Your task to perform on an android device: toggle wifi Image 0: 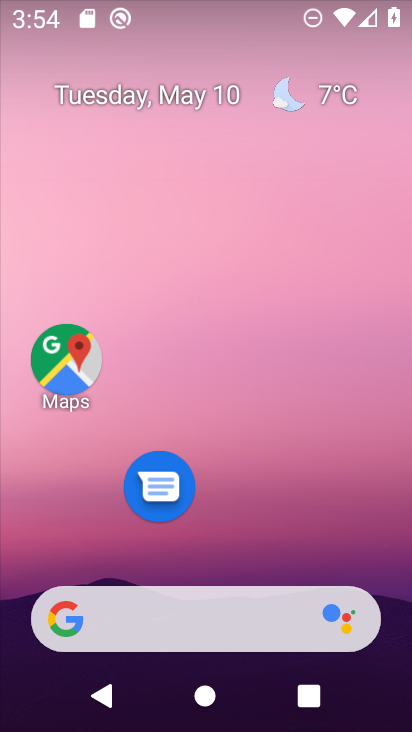
Step 0: drag from (275, 495) to (210, 16)
Your task to perform on an android device: toggle wifi Image 1: 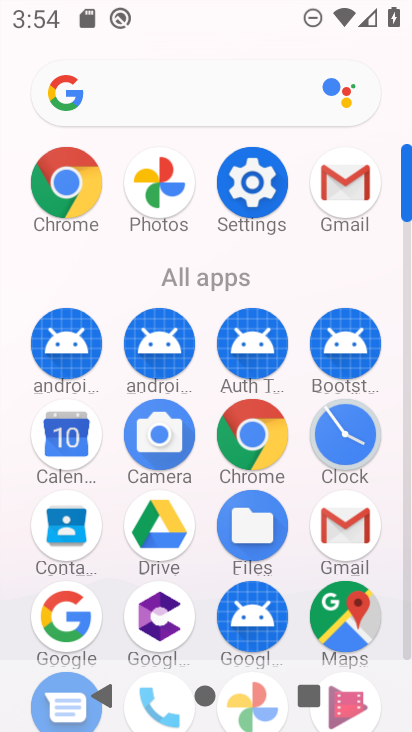
Step 1: drag from (18, 490) to (4, 236)
Your task to perform on an android device: toggle wifi Image 2: 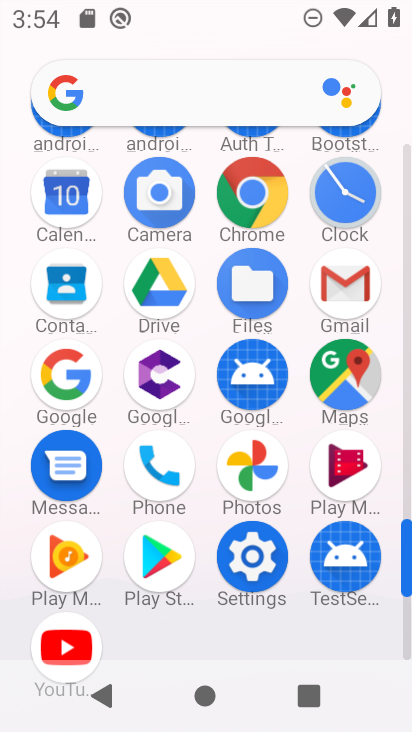
Step 2: click (251, 553)
Your task to perform on an android device: toggle wifi Image 3: 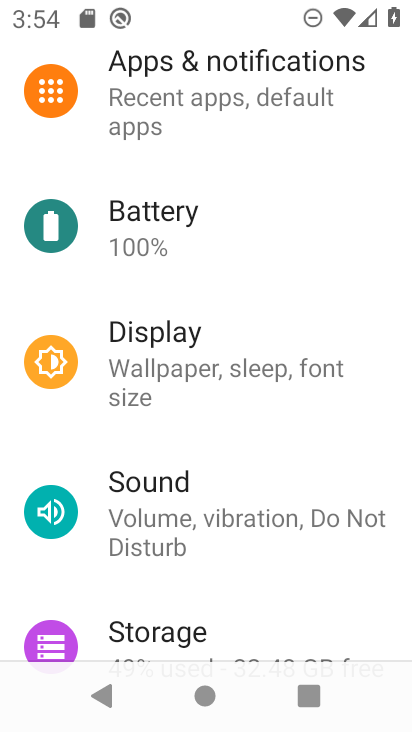
Step 3: drag from (276, 233) to (276, 570)
Your task to perform on an android device: toggle wifi Image 4: 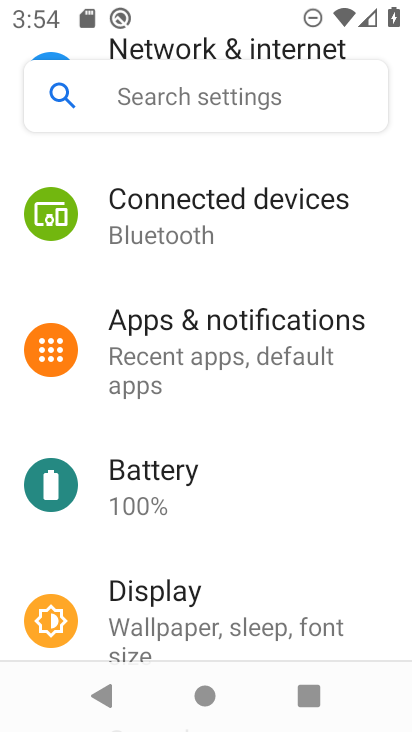
Step 4: drag from (320, 247) to (318, 546)
Your task to perform on an android device: toggle wifi Image 5: 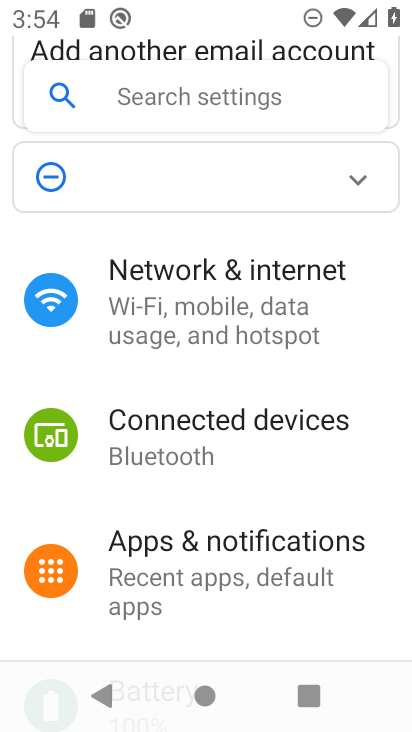
Step 5: click (221, 286)
Your task to perform on an android device: toggle wifi Image 6: 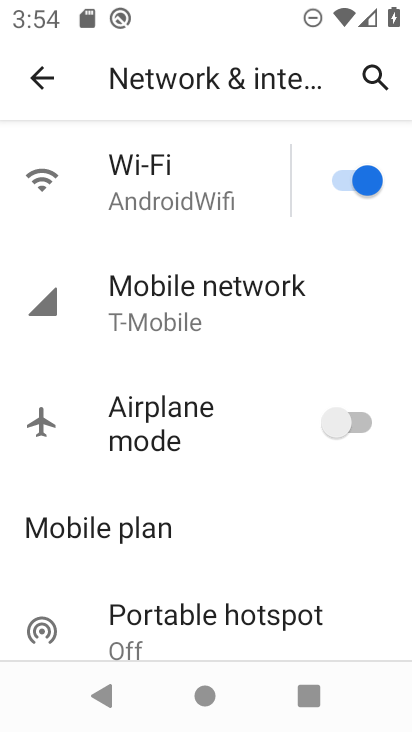
Step 6: click (350, 167)
Your task to perform on an android device: toggle wifi Image 7: 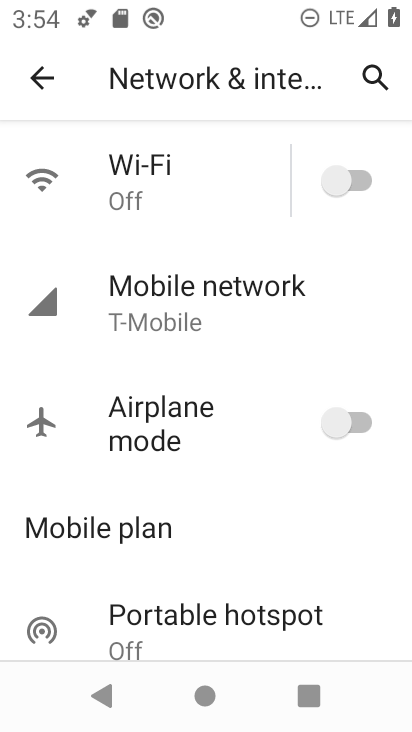
Step 7: task complete